Your task to perform on an android device: change the clock style Image 0: 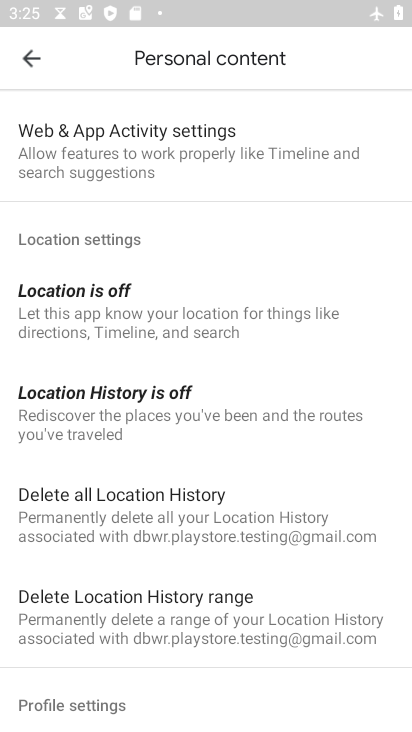
Step 0: press home button
Your task to perform on an android device: change the clock style Image 1: 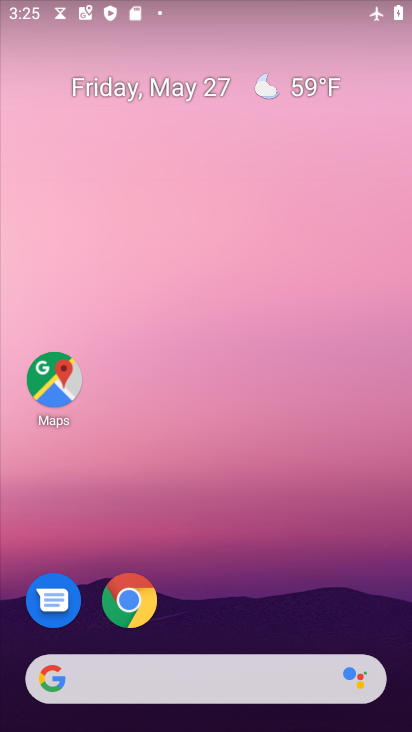
Step 1: drag from (264, 608) to (196, 89)
Your task to perform on an android device: change the clock style Image 2: 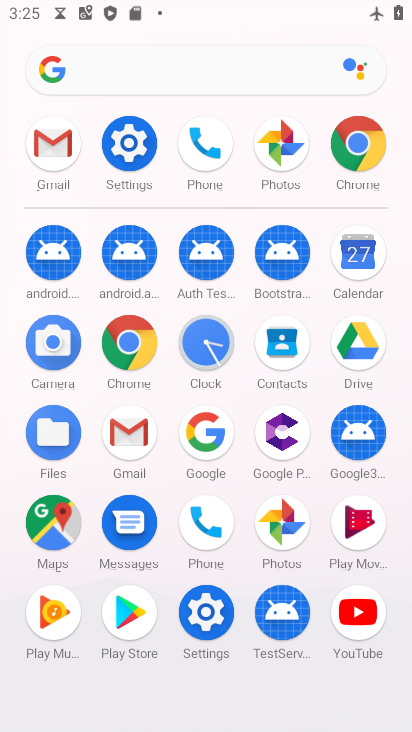
Step 2: click (204, 342)
Your task to perform on an android device: change the clock style Image 3: 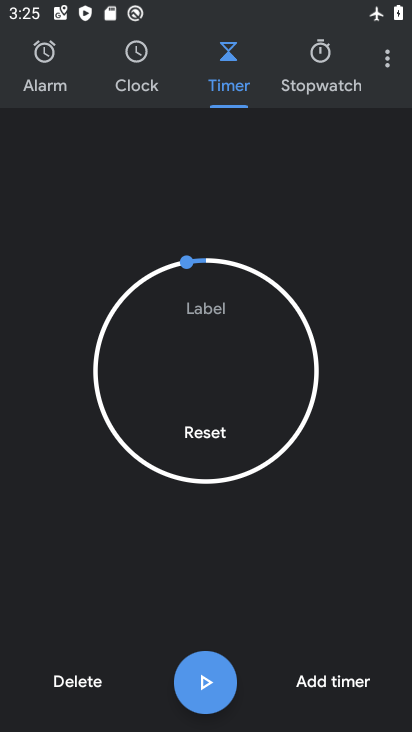
Step 3: click (387, 60)
Your task to perform on an android device: change the clock style Image 4: 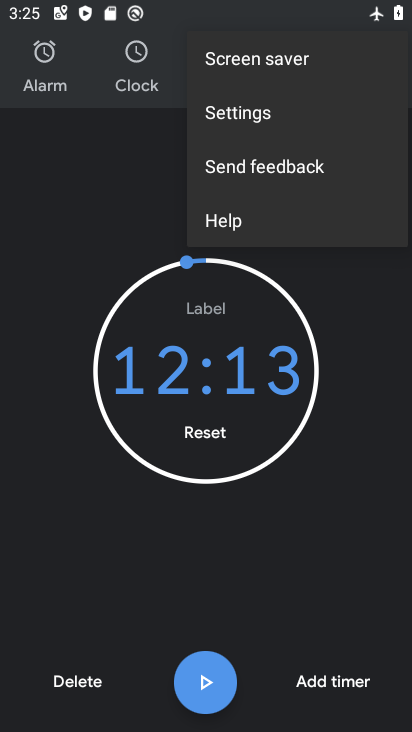
Step 4: click (260, 110)
Your task to perform on an android device: change the clock style Image 5: 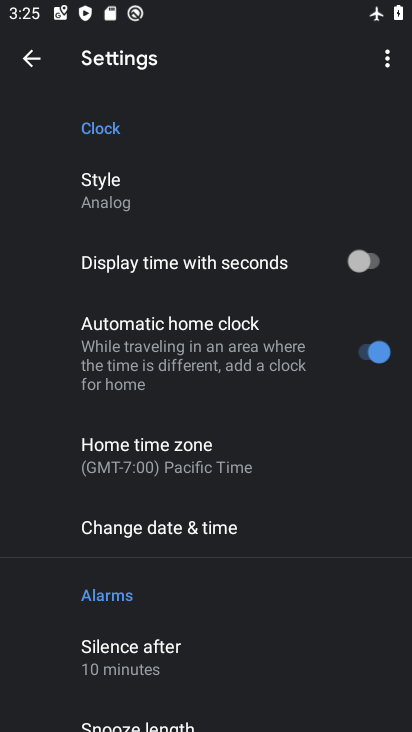
Step 5: click (139, 184)
Your task to perform on an android device: change the clock style Image 6: 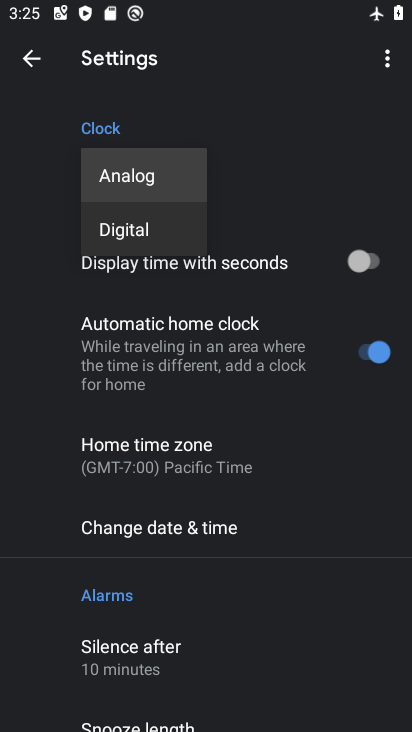
Step 6: click (138, 234)
Your task to perform on an android device: change the clock style Image 7: 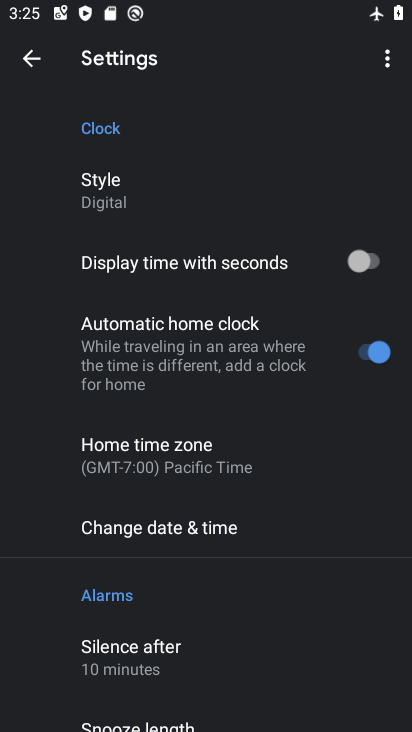
Step 7: task complete